Your task to perform on an android device: change keyboard looks Image 0: 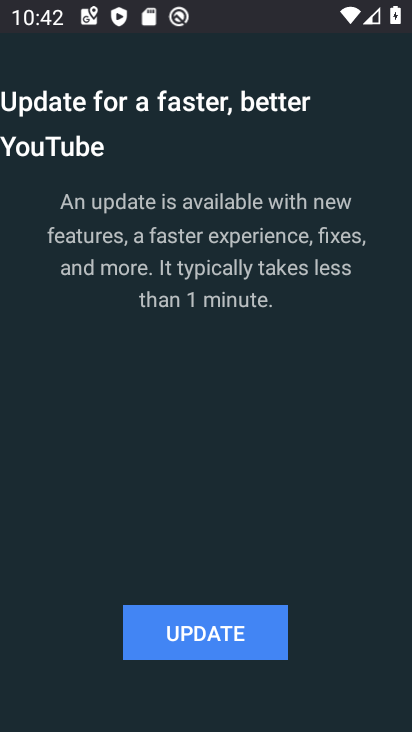
Step 0: press home button
Your task to perform on an android device: change keyboard looks Image 1: 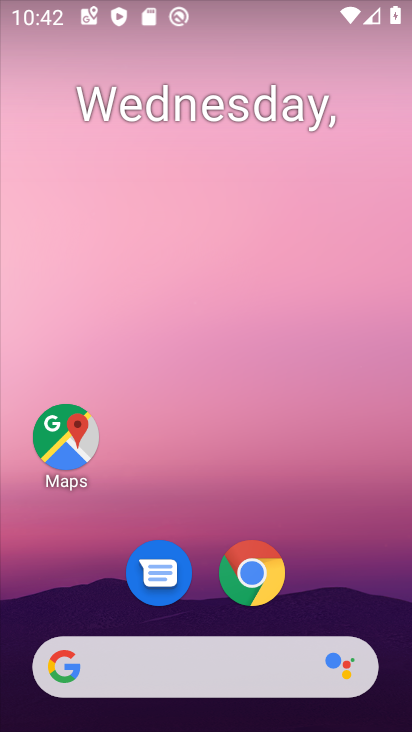
Step 1: drag from (208, 525) to (252, 48)
Your task to perform on an android device: change keyboard looks Image 2: 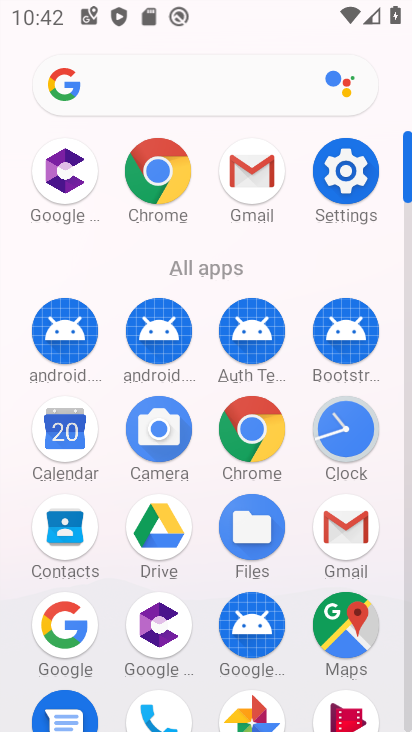
Step 2: click (345, 173)
Your task to perform on an android device: change keyboard looks Image 3: 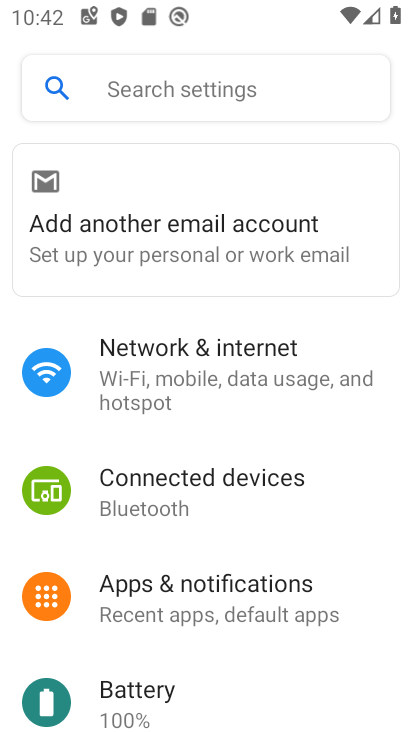
Step 3: drag from (214, 529) to (240, 393)
Your task to perform on an android device: change keyboard looks Image 4: 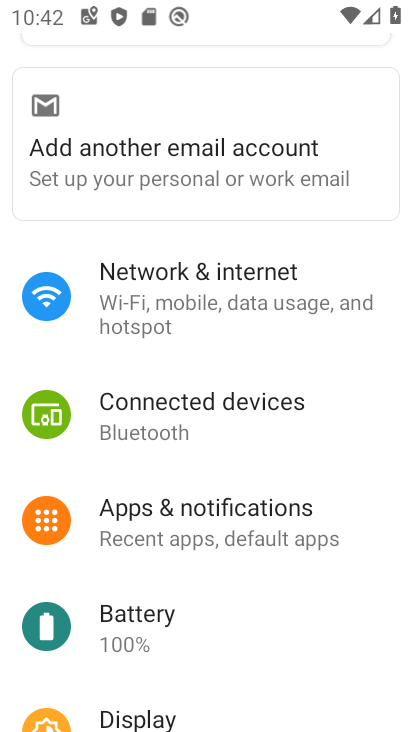
Step 4: drag from (177, 569) to (211, 420)
Your task to perform on an android device: change keyboard looks Image 5: 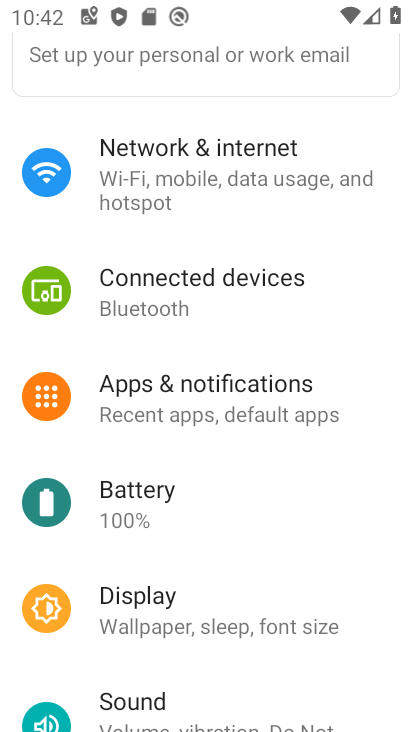
Step 5: drag from (192, 544) to (219, 374)
Your task to perform on an android device: change keyboard looks Image 6: 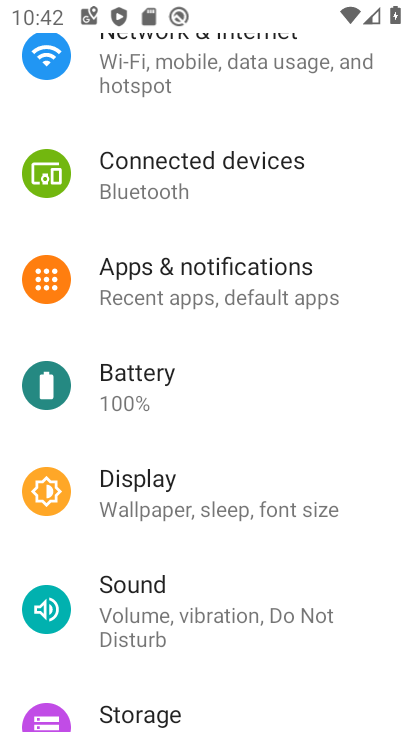
Step 6: drag from (175, 444) to (249, 298)
Your task to perform on an android device: change keyboard looks Image 7: 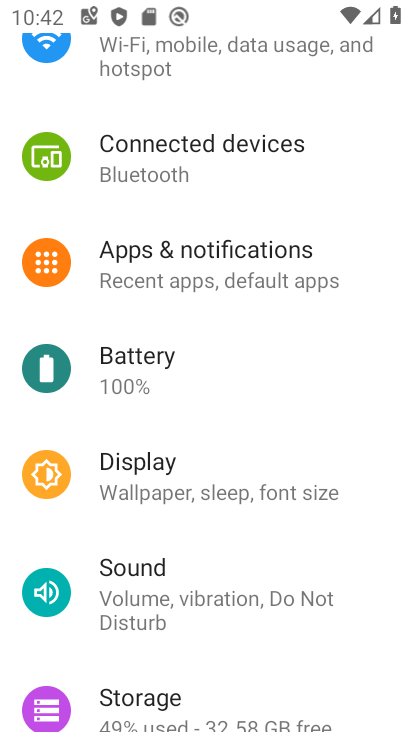
Step 7: drag from (183, 543) to (266, 397)
Your task to perform on an android device: change keyboard looks Image 8: 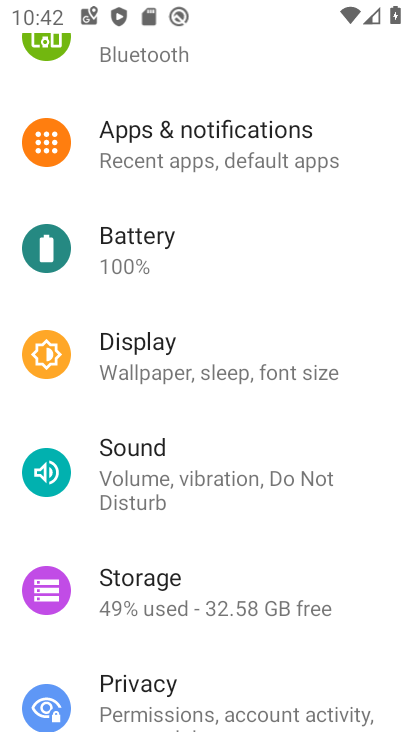
Step 8: drag from (196, 549) to (236, 403)
Your task to perform on an android device: change keyboard looks Image 9: 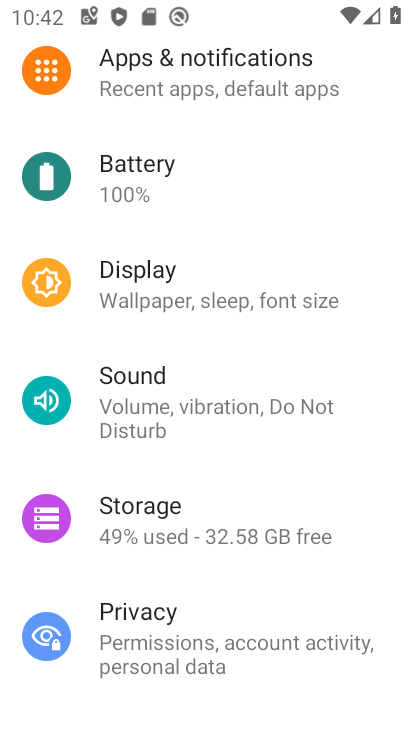
Step 9: drag from (212, 592) to (237, 465)
Your task to perform on an android device: change keyboard looks Image 10: 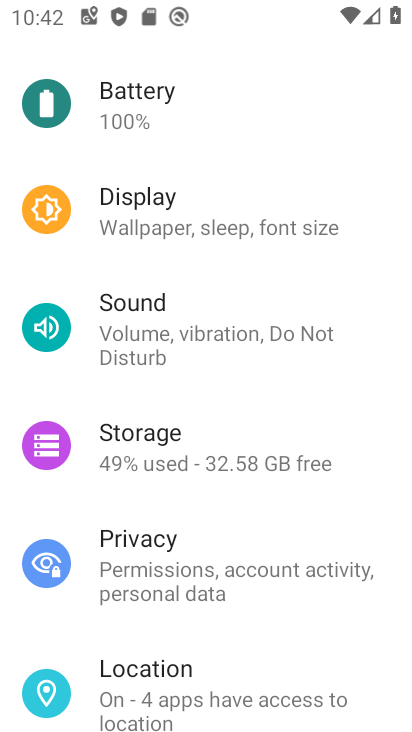
Step 10: drag from (240, 586) to (257, 489)
Your task to perform on an android device: change keyboard looks Image 11: 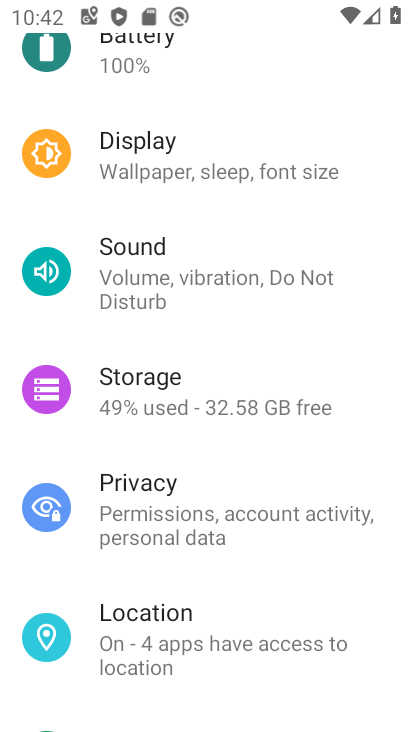
Step 11: drag from (215, 575) to (255, 438)
Your task to perform on an android device: change keyboard looks Image 12: 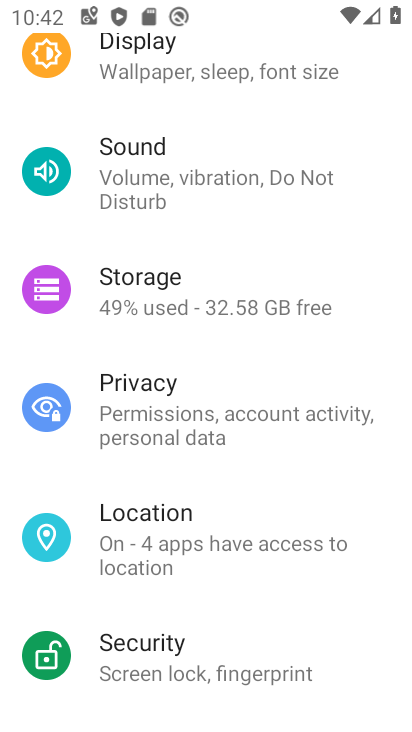
Step 12: drag from (222, 594) to (248, 447)
Your task to perform on an android device: change keyboard looks Image 13: 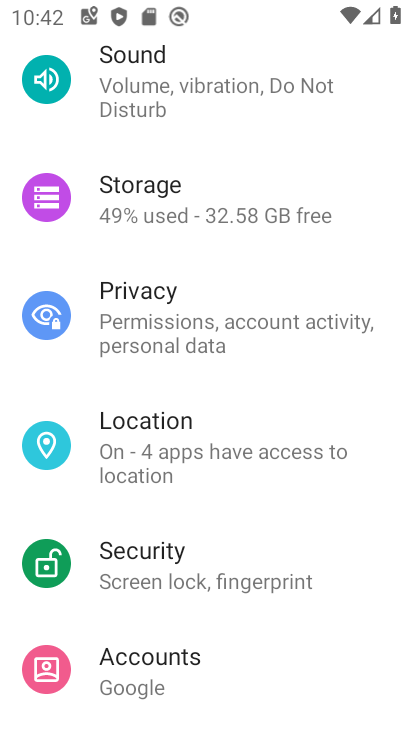
Step 13: drag from (199, 627) to (259, 497)
Your task to perform on an android device: change keyboard looks Image 14: 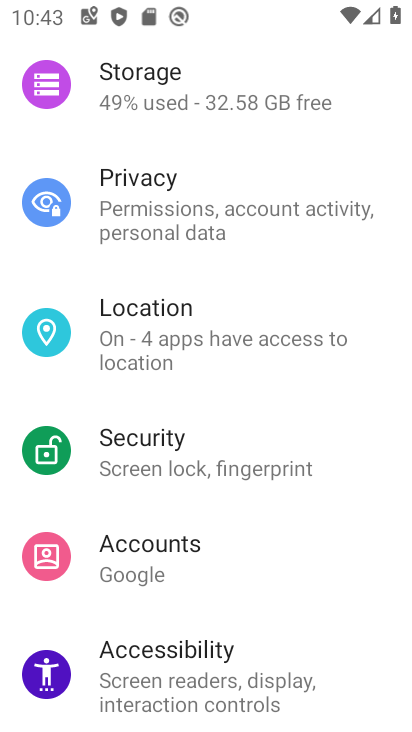
Step 14: drag from (202, 610) to (279, 449)
Your task to perform on an android device: change keyboard looks Image 15: 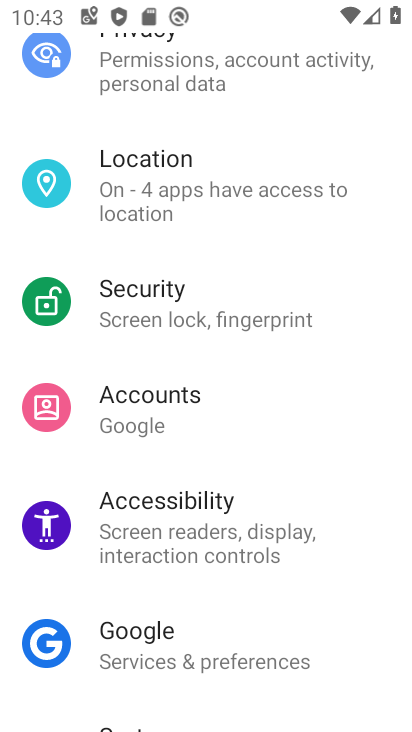
Step 15: drag from (204, 611) to (248, 455)
Your task to perform on an android device: change keyboard looks Image 16: 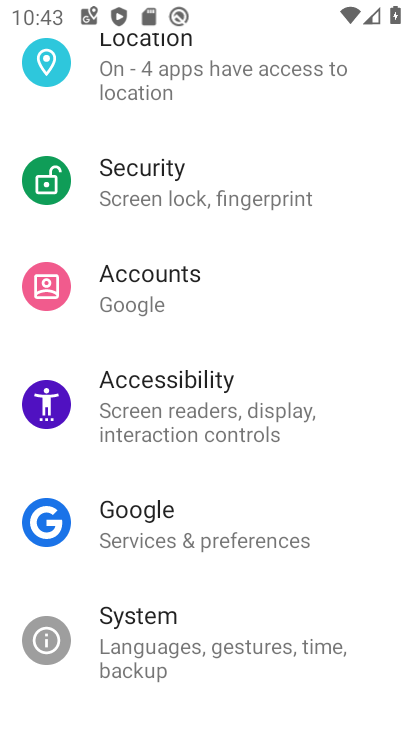
Step 16: drag from (208, 599) to (277, 375)
Your task to perform on an android device: change keyboard looks Image 17: 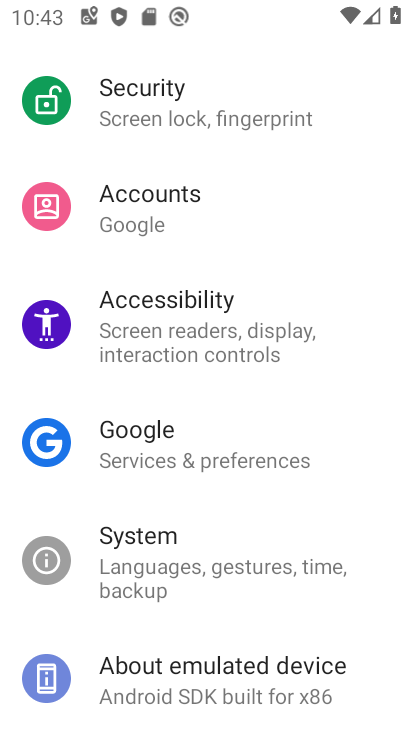
Step 17: click (169, 534)
Your task to perform on an android device: change keyboard looks Image 18: 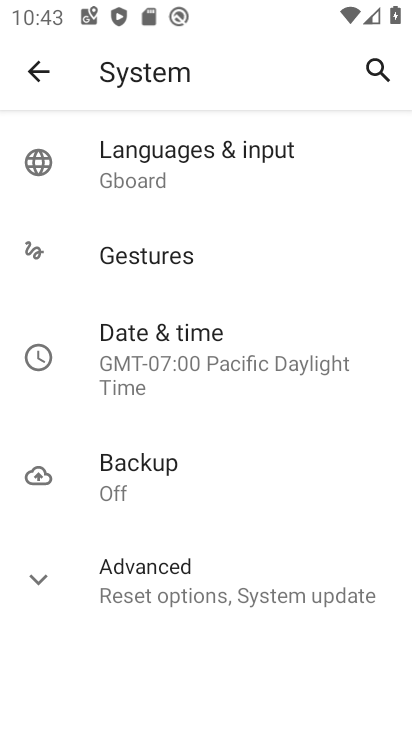
Step 18: click (186, 147)
Your task to perform on an android device: change keyboard looks Image 19: 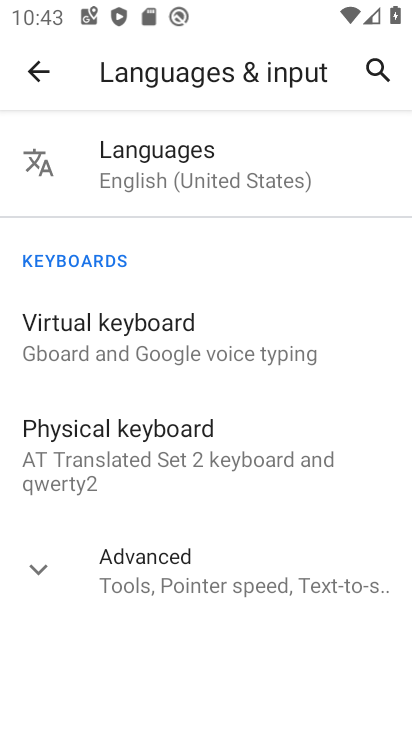
Step 19: click (157, 348)
Your task to perform on an android device: change keyboard looks Image 20: 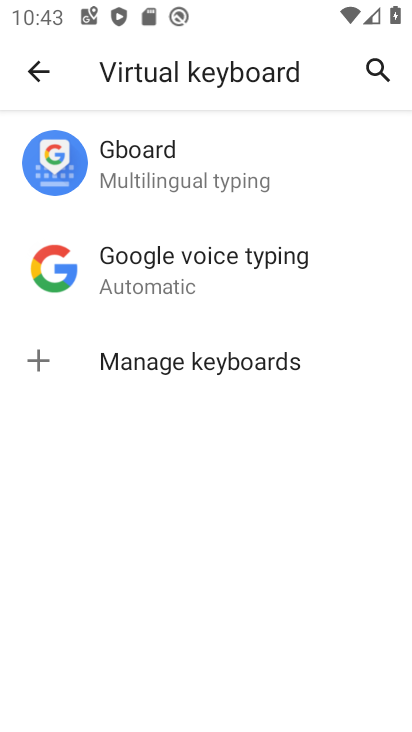
Step 20: click (138, 181)
Your task to perform on an android device: change keyboard looks Image 21: 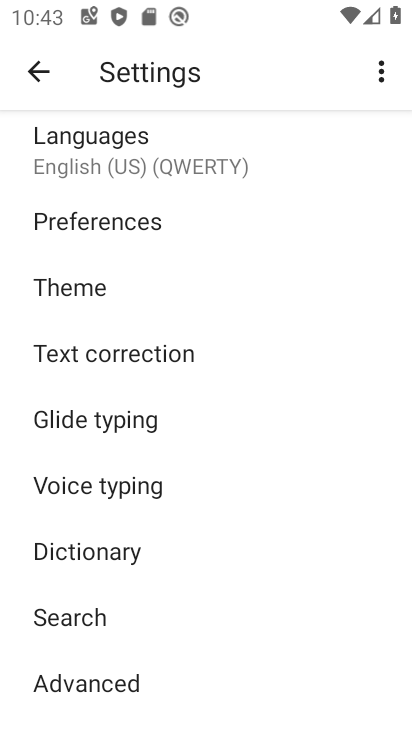
Step 21: click (72, 288)
Your task to perform on an android device: change keyboard looks Image 22: 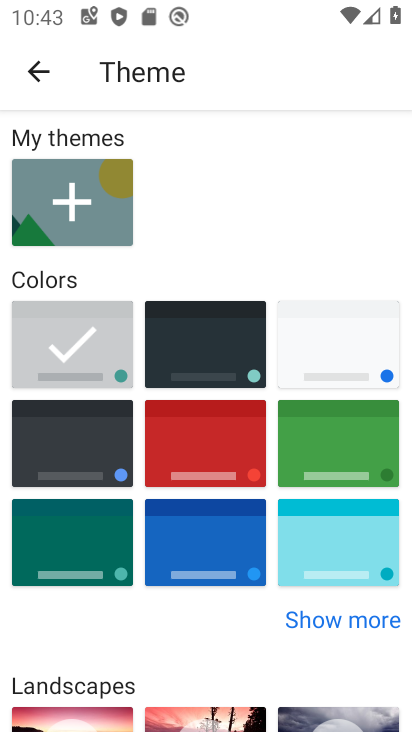
Step 22: click (215, 435)
Your task to perform on an android device: change keyboard looks Image 23: 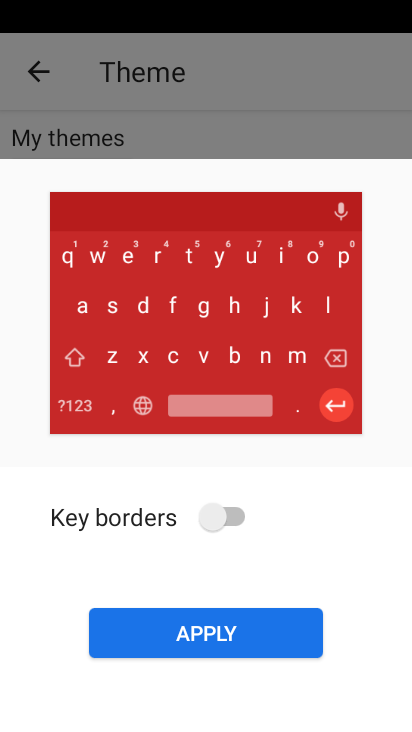
Step 23: click (216, 517)
Your task to perform on an android device: change keyboard looks Image 24: 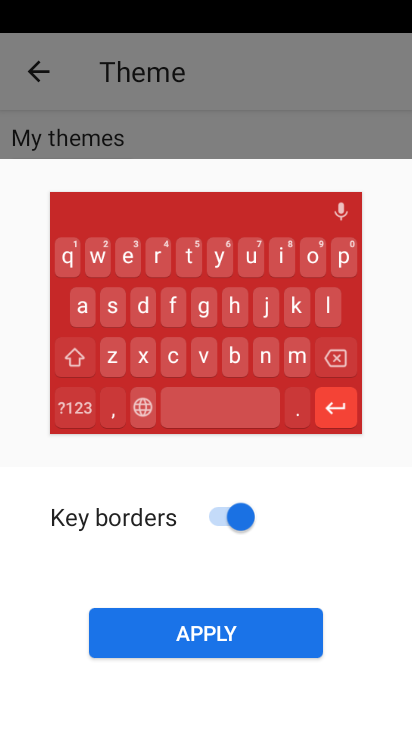
Step 24: click (204, 641)
Your task to perform on an android device: change keyboard looks Image 25: 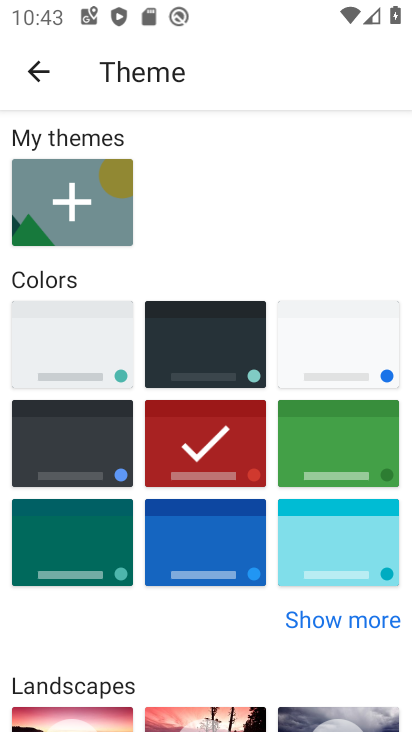
Step 25: task complete